Your task to perform on an android device: Go to display settings Image 0: 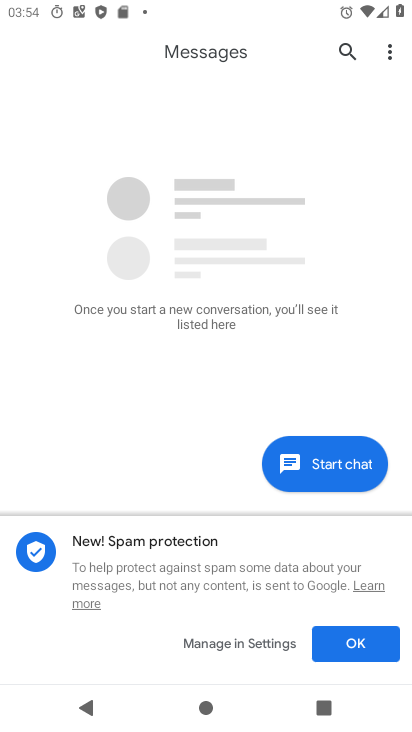
Step 0: press home button
Your task to perform on an android device: Go to display settings Image 1: 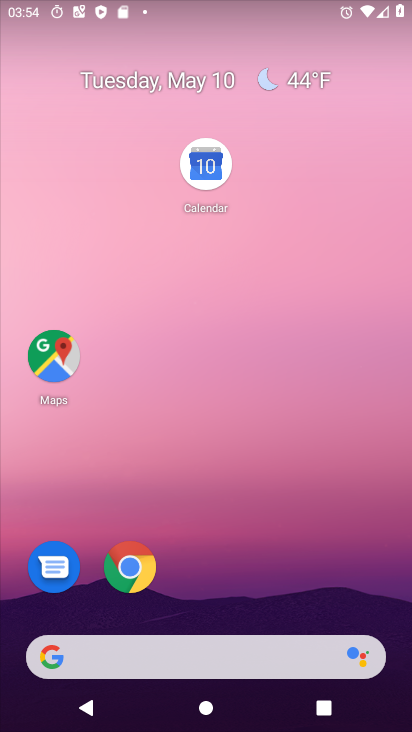
Step 1: drag from (235, 577) to (271, 43)
Your task to perform on an android device: Go to display settings Image 2: 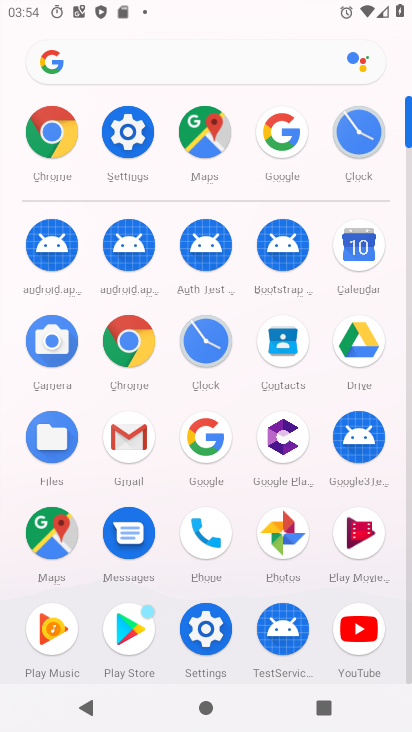
Step 2: click (129, 136)
Your task to perform on an android device: Go to display settings Image 3: 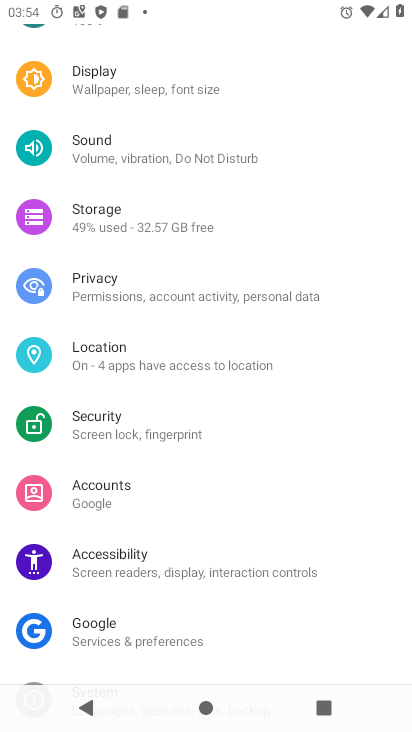
Step 3: drag from (190, 237) to (201, 362)
Your task to perform on an android device: Go to display settings Image 4: 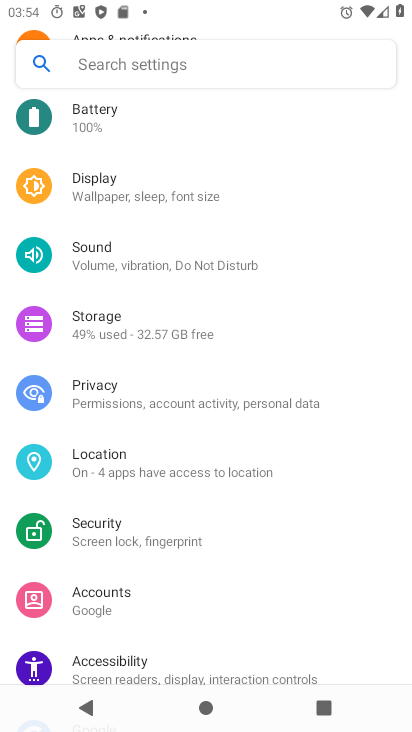
Step 4: click (164, 193)
Your task to perform on an android device: Go to display settings Image 5: 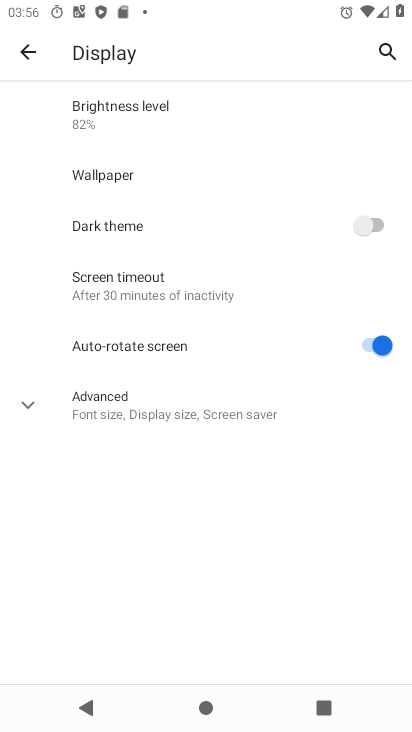
Step 5: task complete